Your task to perform on an android device: Go to Yahoo.com Image 0: 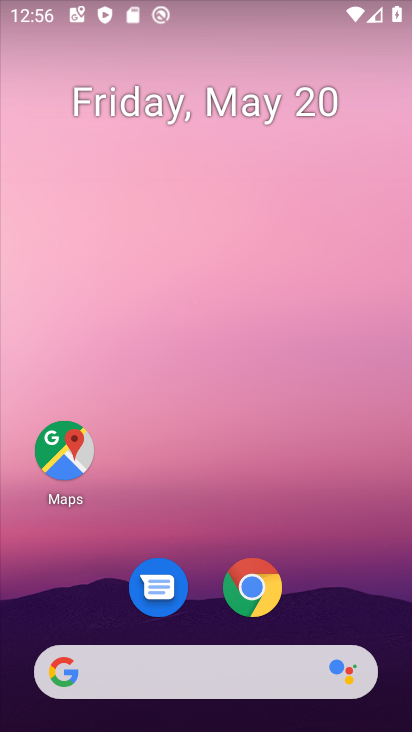
Step 0: click (256, 594)
Your task to perform on an android device: Go to Yahoo.com Image 1: 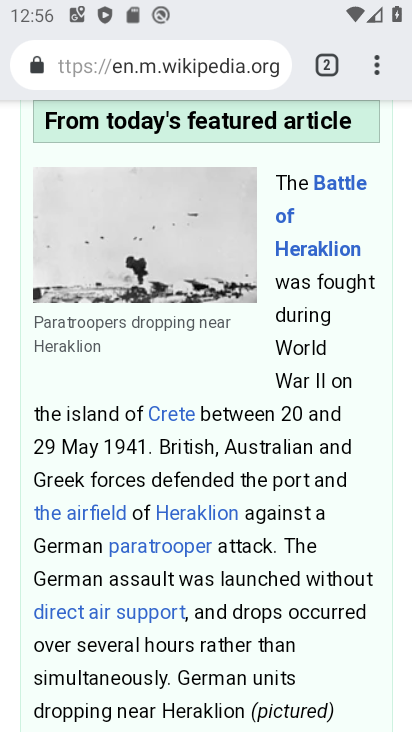
Step 1: click (373, 63)
Your task to perform on an android device: Go to Yahoo.com Image 2: 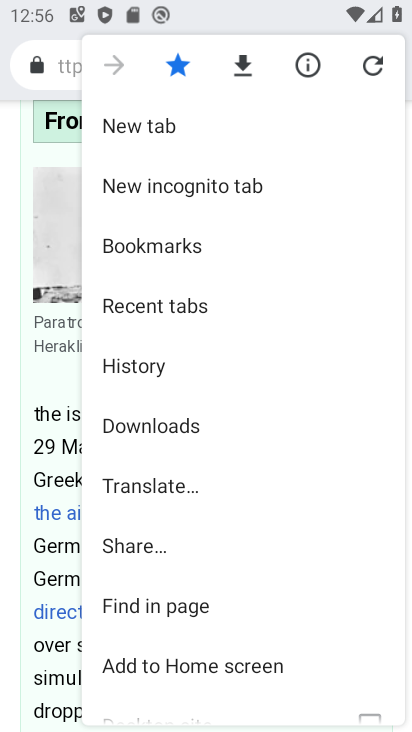
Step 2: click (124, 117)
Your task to perform on an android device: Go to Yahoo.com Image 3: 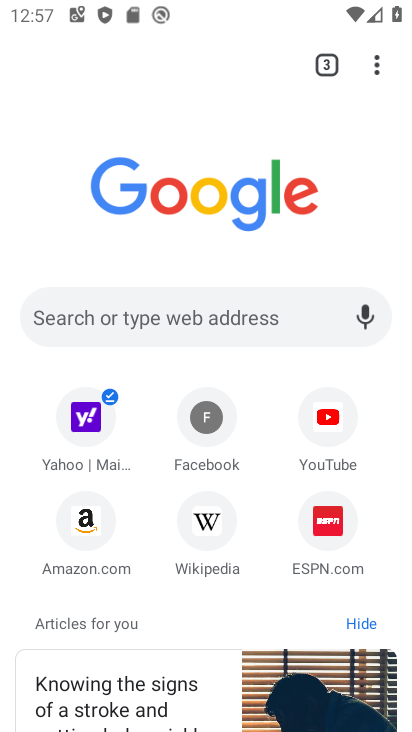
Step 3: click (82, 410)
Your task to perform on an android device: Go to Yahoo.com Image 4: 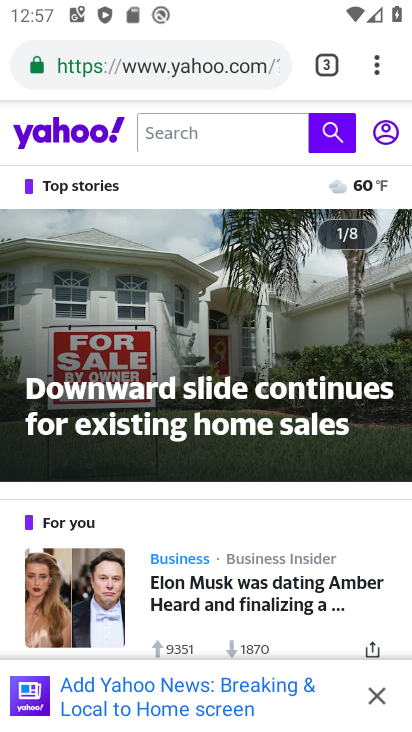
Step 4: task complete